Your task to perform on an android device: toggle show notifications on the lock screen Image 0: 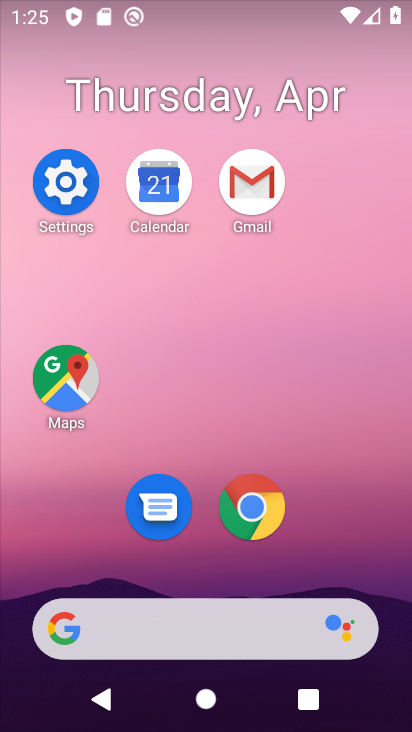
Step 0: click (69, 178)
Your task to perform on an android device: toggle show notifications on the lock screen Image 1: 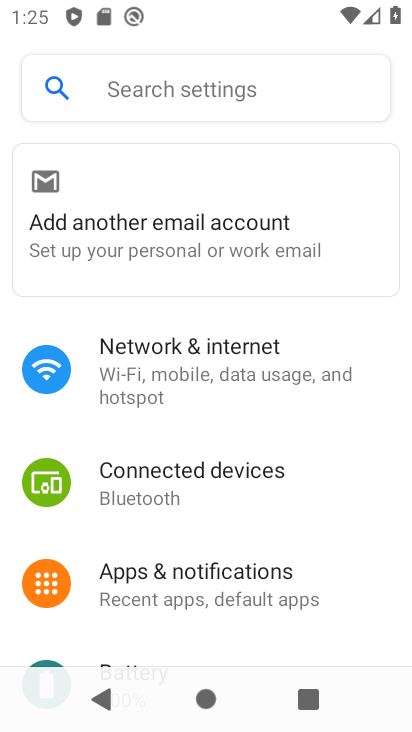
Step 1: click (209, 574)
Your task to perform on an android device: toggle show notifications on the lock screen Image 2: 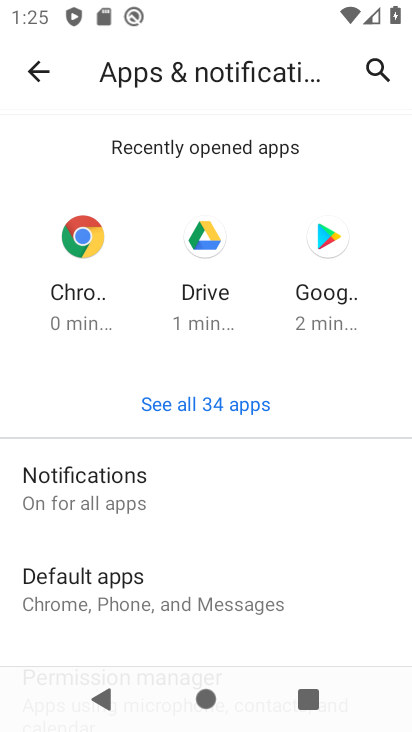
Step 2: click (152, 492)
Your task to perform on an android device: toggle show notifications on the lock screen Image 3: 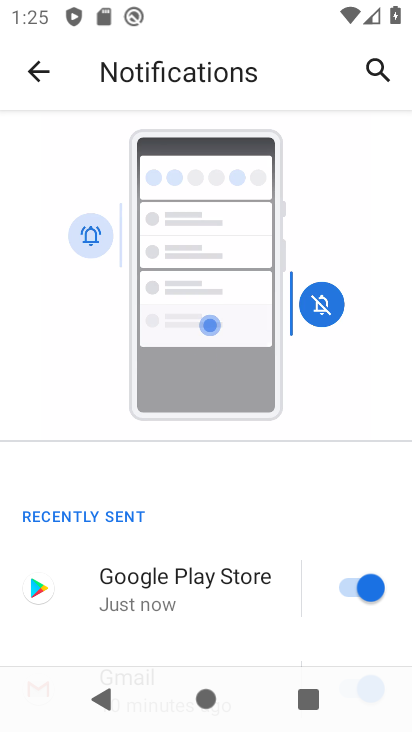
Step 3: drag from (210, 617) to (236, 55)
Your task to perform on an android device: toggle show notifications on the lock screen Image 4: 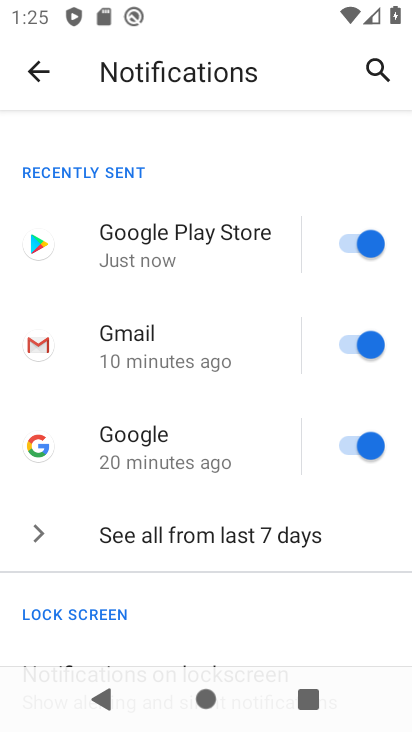
Step 4: drag from (235, 601) to (233, 93)
Your task to perform on an android device: toggle show notifications on the lock screen Image 5: 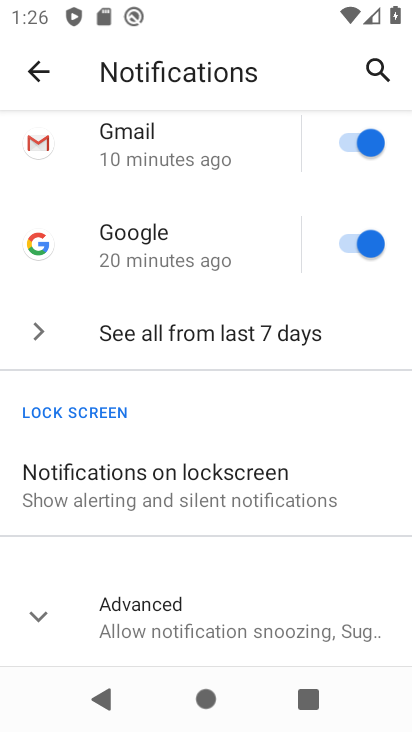
Step 5: click (160, 494)
Your task to perform on an android device: toggle show notifications on the lock screen Image 6: 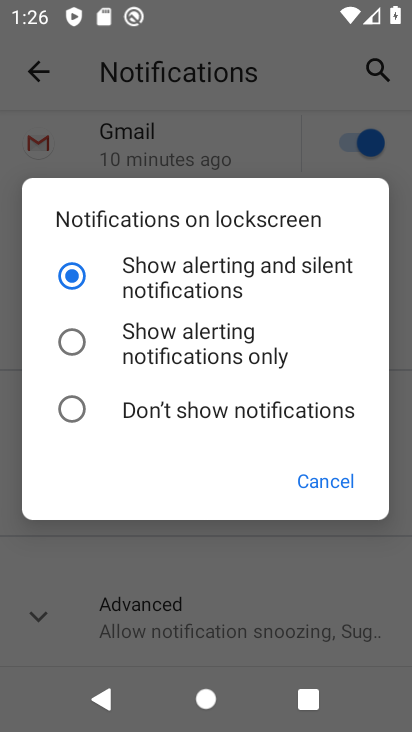
Step 6: click (84, 338)
Your task to perform on an android device: toggle show notifications on the lock screen Image 7: 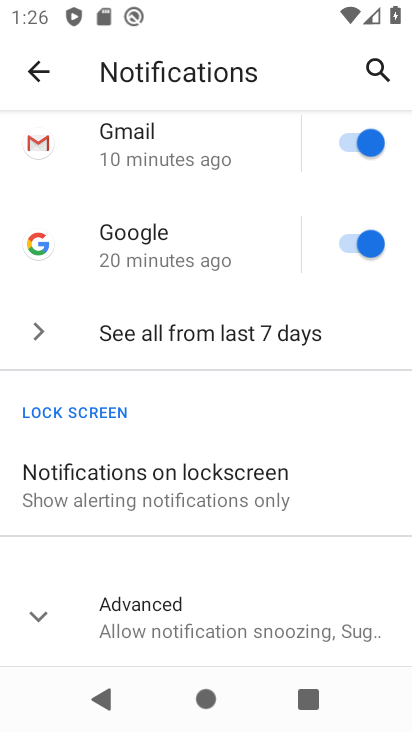
Step 7: task complete